Your task to perform on an android device: Is it going to rain today? Image 0: 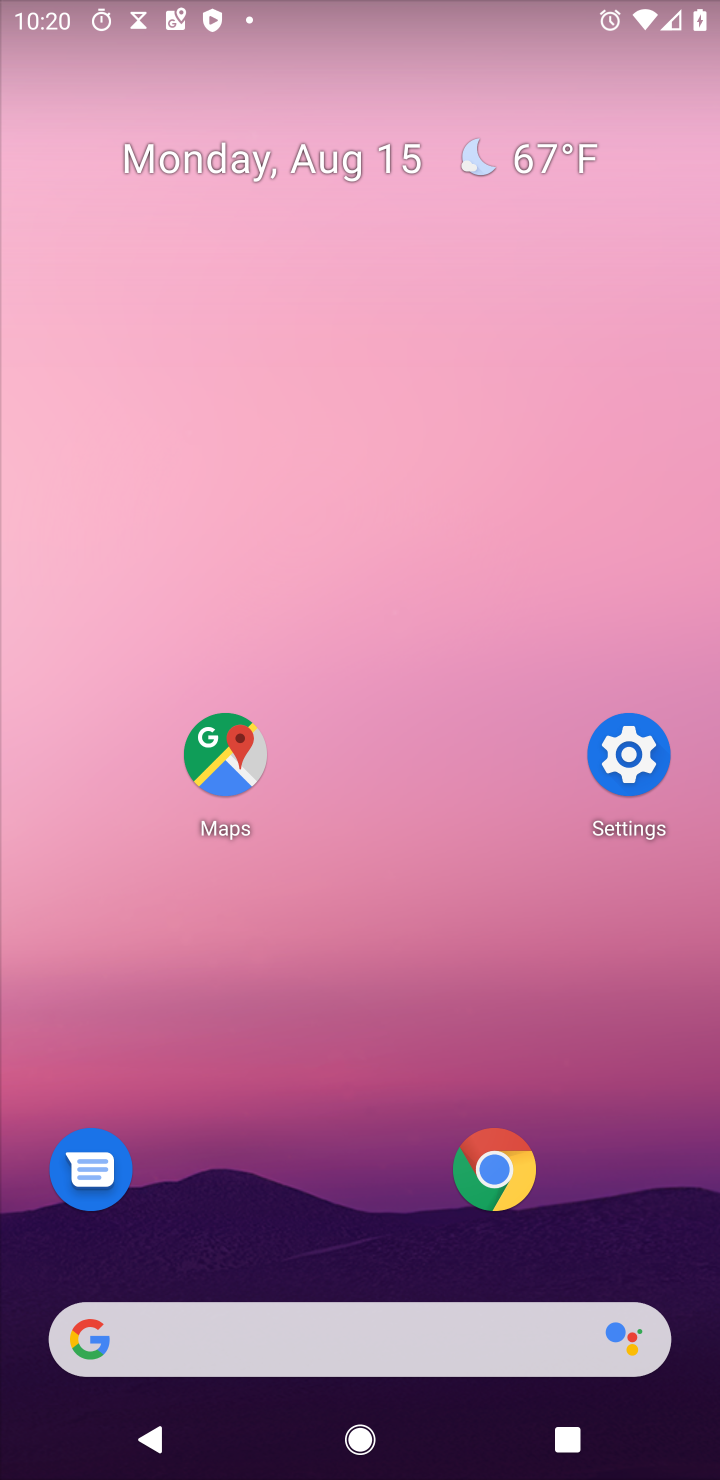
Step 0: click (540, 154)
Your task to perform on an android device: Is it going to rain today? Image 1: 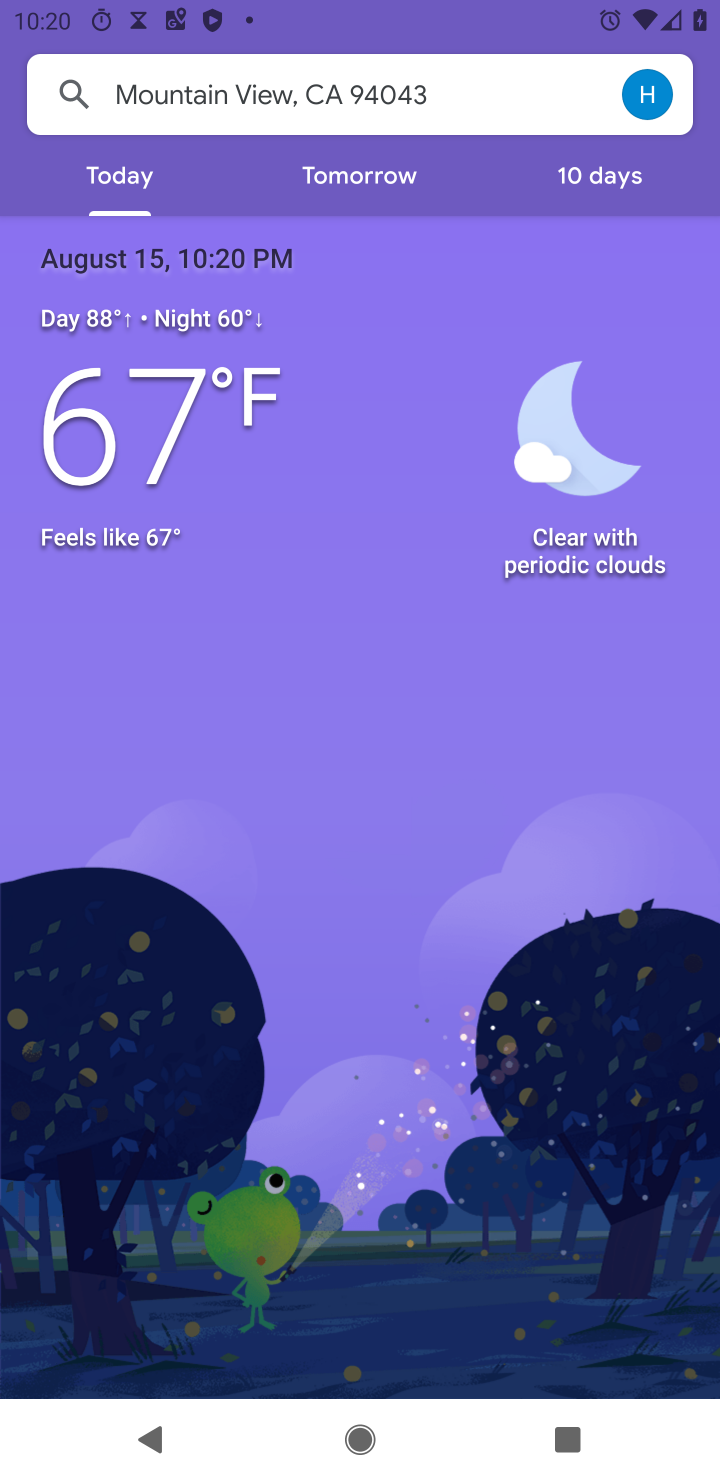
Step 1: task complete